Your task to perform on an android device: What's on my calendar tomorrow? Image 0: 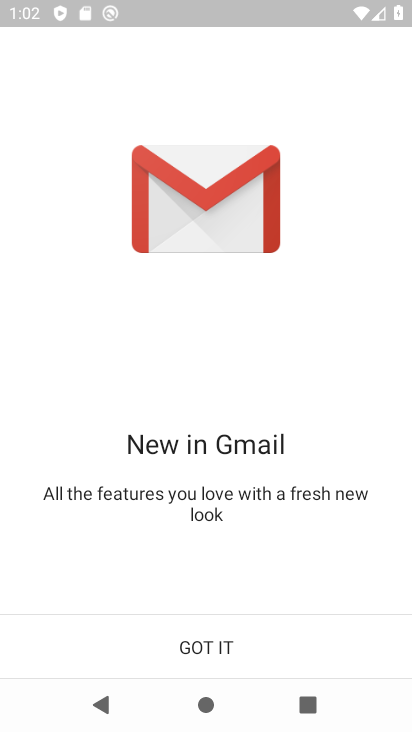
Step 0: press back button
Your task to perform on an android device: What's on my calendar tomorrow? Image 1: 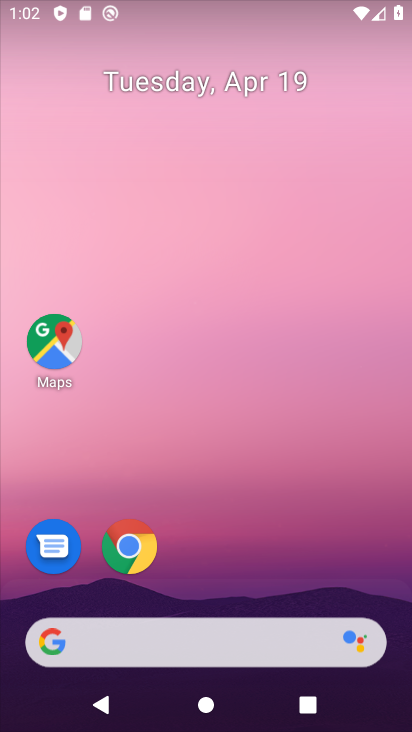
Step 1: drag from (229, 582) to (264, 14)
Your task to perform on an android device: What's on my calendar tomorrow? Image 2: 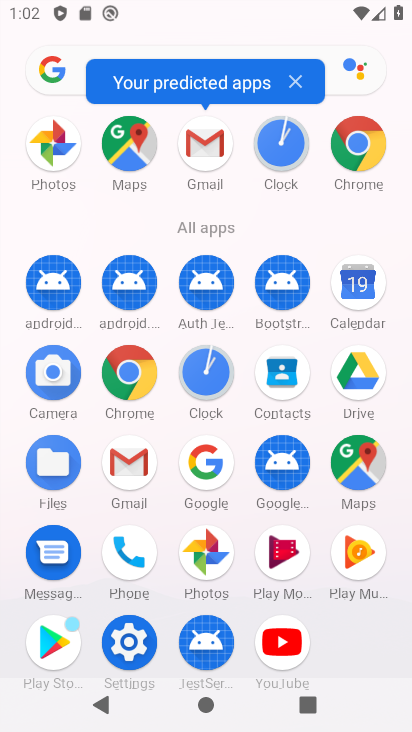
Step 2: click (362, 265)
Your task to perform on an android device: What's on my calendar tomorrow? Image 3: 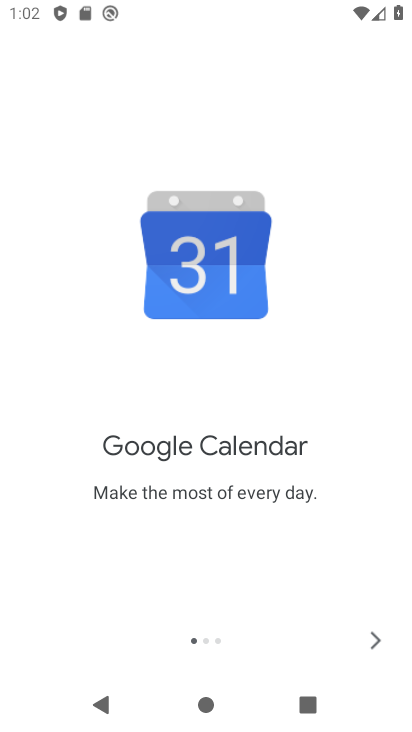
Step 3: click (374, 640)
Your task to perform on an android device: What's on my calendar tomorrow? Image 4: 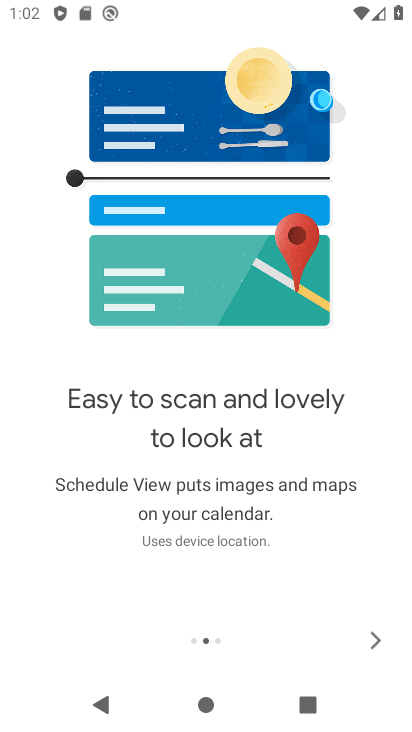
Step 4: click (367, 631)
Your task to perform on an android device: What's on my calendar tomorrow? Image 5: 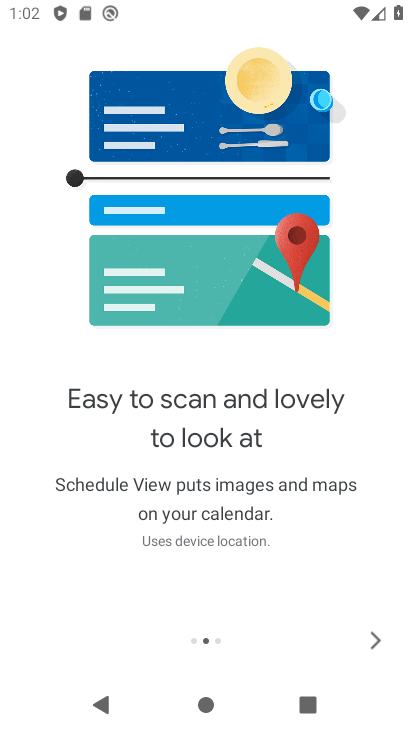
Step 5: click (367, 631)
Your task to perform on an android device: What's on my calendar tomorrow? Image 6: 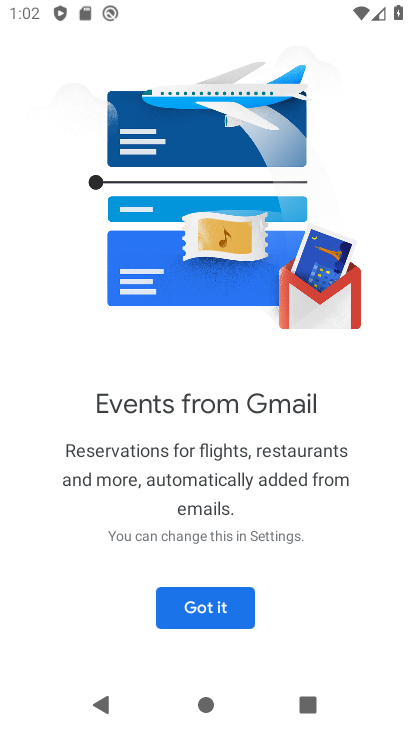
Step 6: click (367, 631)
Your task to perform on an android device: What's on my calendar tomorrow? Image 7: 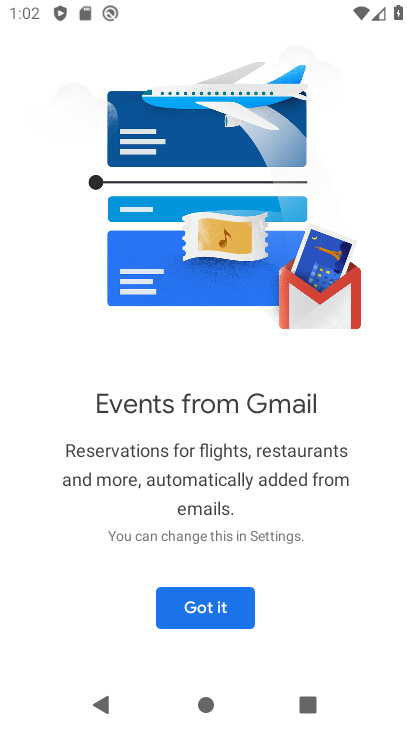
Step 7: click (219, 601)
Your task to perform on an android device: What's on my calendar tomorrow? Image 8: 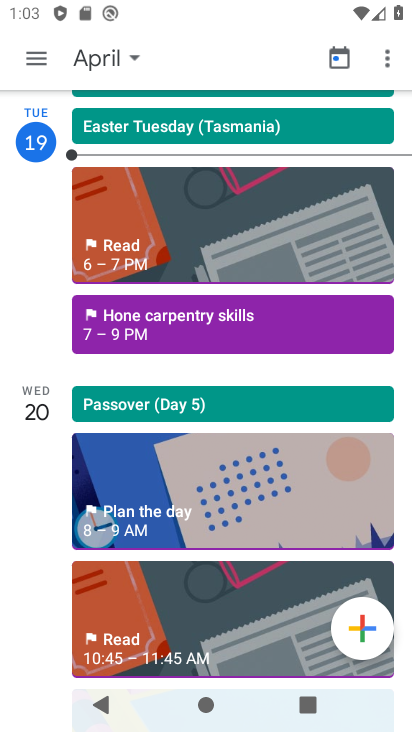
Step 8: drag from (213, 478) to (282, 287)
Your task to perform on an android device: What's on my calendar tomorrow? Image 9: 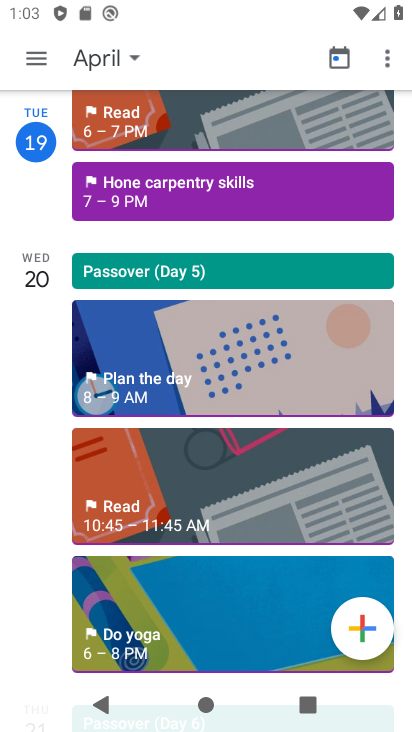
Step 9: click (196, 621)
Your task to perform on an android device: What's on my calendar tomorrow? Image 10: 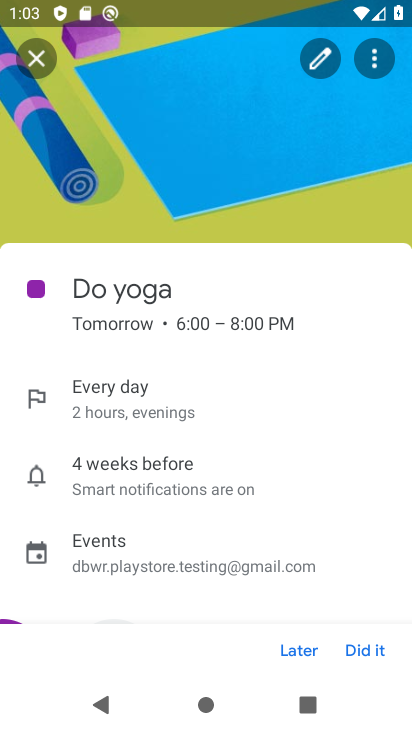
Step 10: task complete